Your task to perform on an android device: turn off sleep mode Image 0: 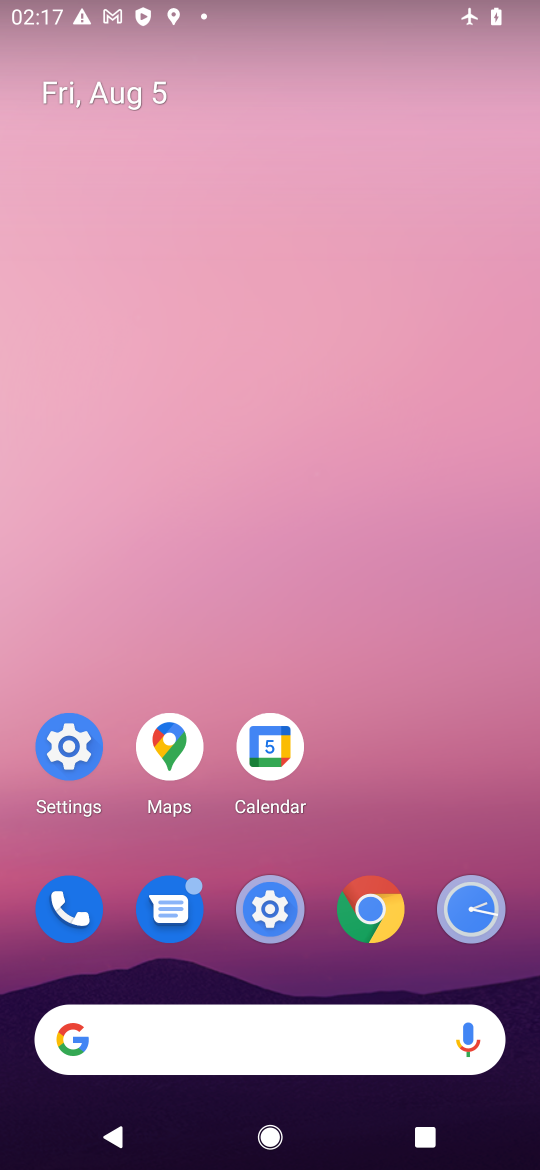
Step 0: click (269, 909)
Your task to perform on an android device: turn off sleep mode Image 1: 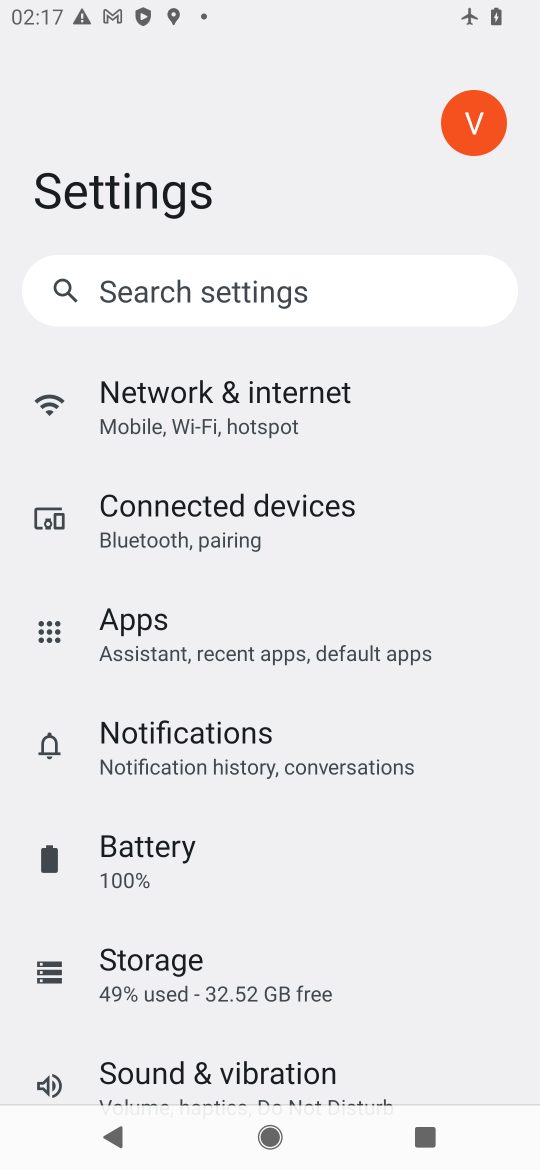
Step 1: drag from (328, 896) to (317, 349)
Your task to perform on an android device: turn off sleep mode Image 2: 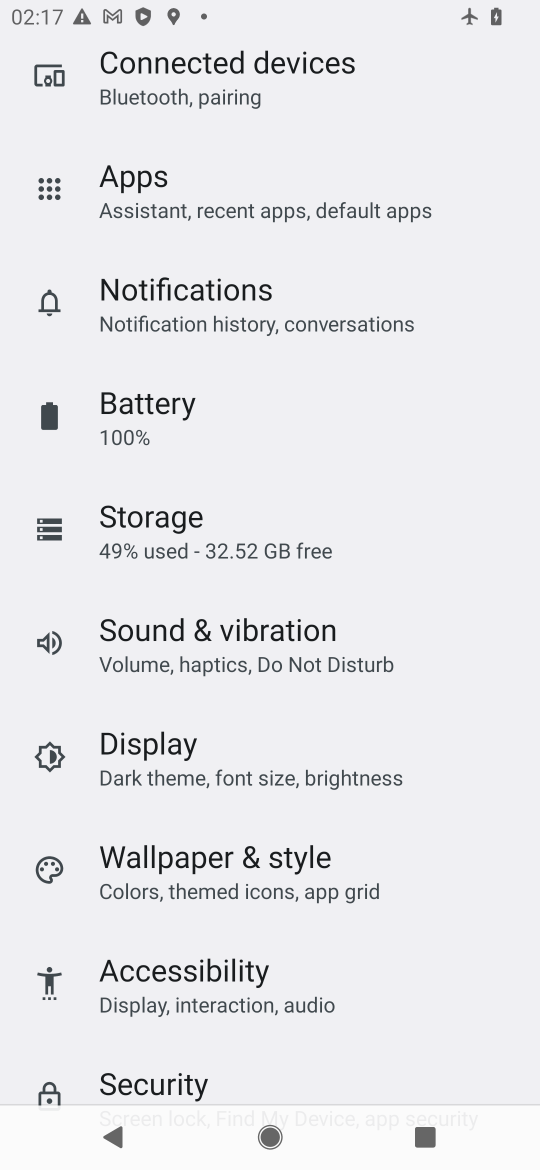
Step 2: click (175, 742)
Your task to perform on an android device: turn off sleep mode Image 3: 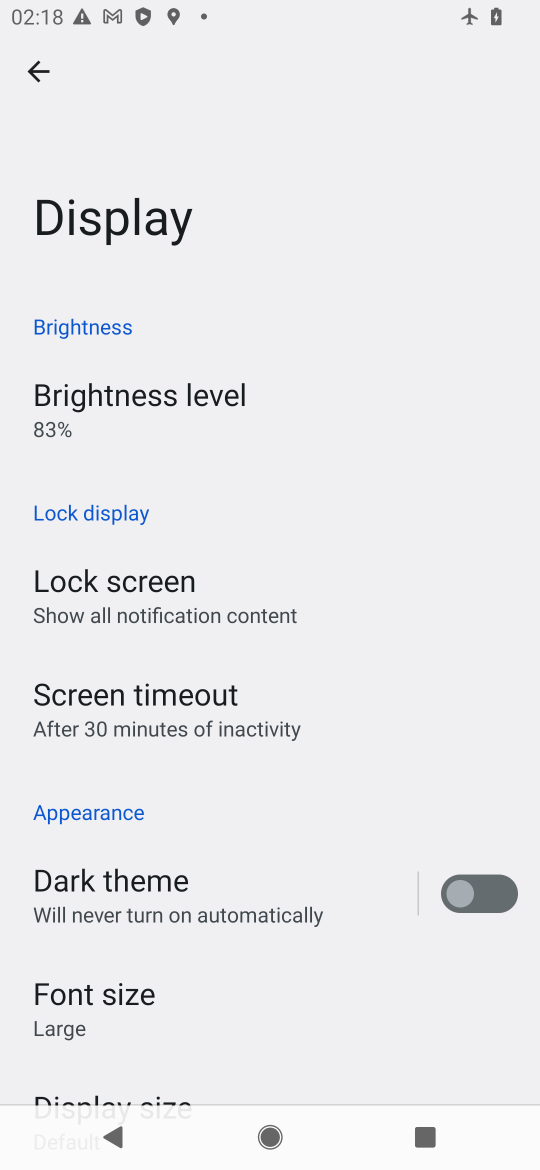
Step 3: task complete